Your task to perform on an android device: snooze an email in the gmail app Image 0: 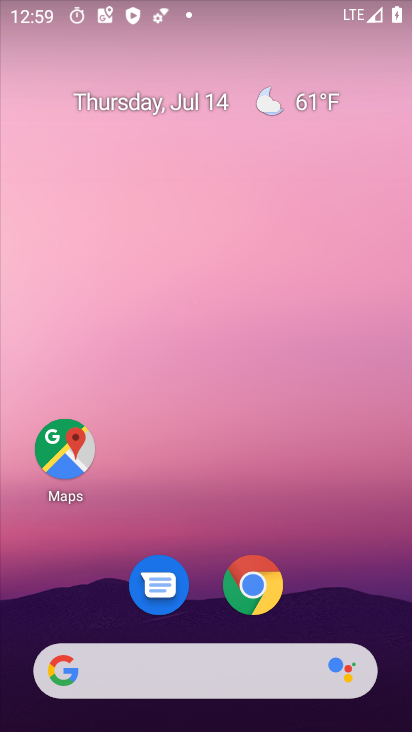
Step 0: drag from (323, 578) to (301, 20)
Your task to perform on an android device: snooze an email in the gmail app Image 1: 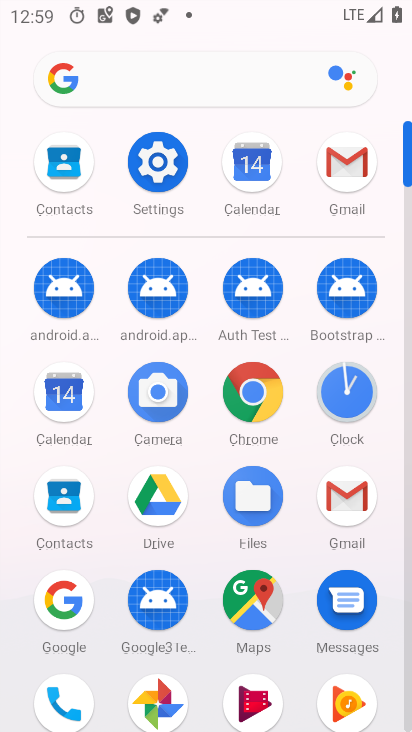
Step 1: click (342, 157)
Your task to perform on an android device: snooze an email in the gmail app Image 2: 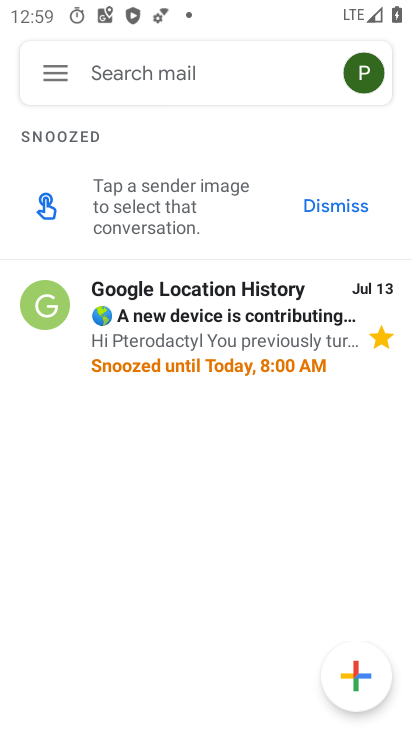
Step 2: task complete